Your task to perform on an android device: Search for "bose soundlink mini" on newegg, select the first entry, and add it to the cart. Image 0: 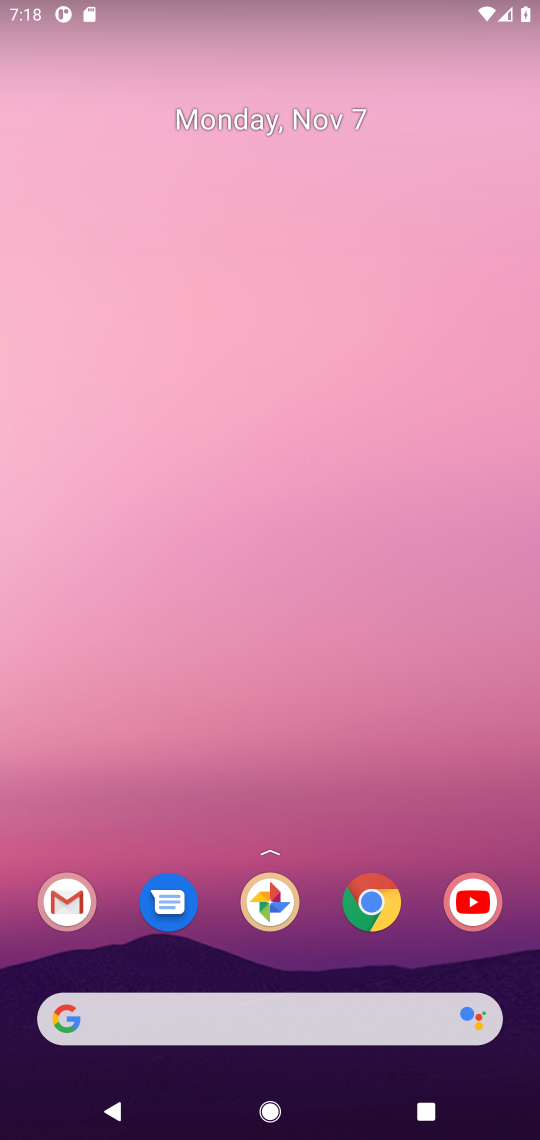
Step 0: click (375, 900)
Your task to perform on an android device: Search for "bose soundlink mini" on newegg, select the first entry, and add it to the cart. Image 1: 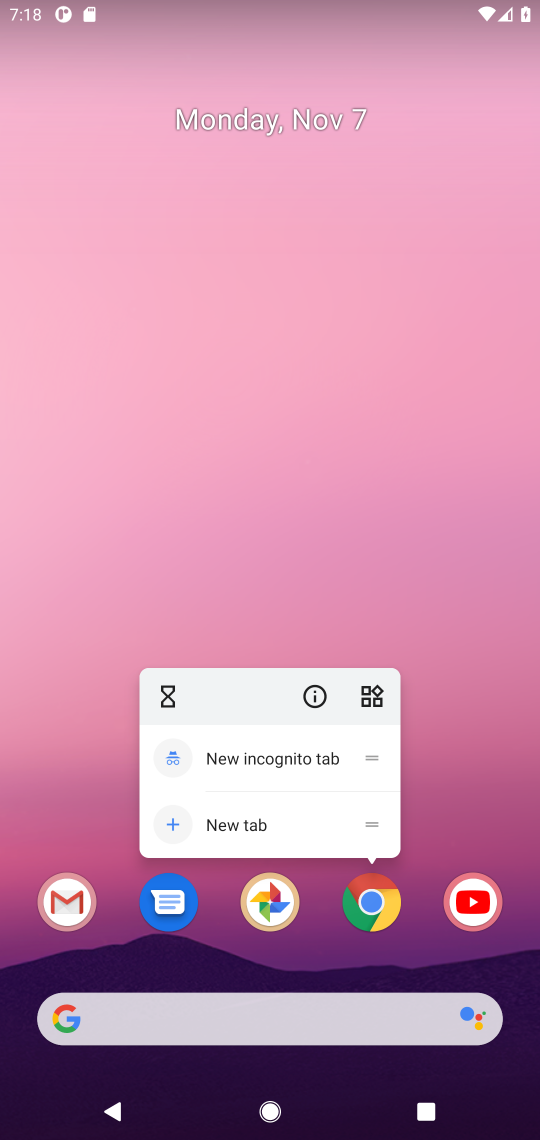
Step 1: click (375, 900)
Your task to perform on an android device: Search for "bose soundlink mini" on newegg, select the first entry, and add it to the cart. Image 2: 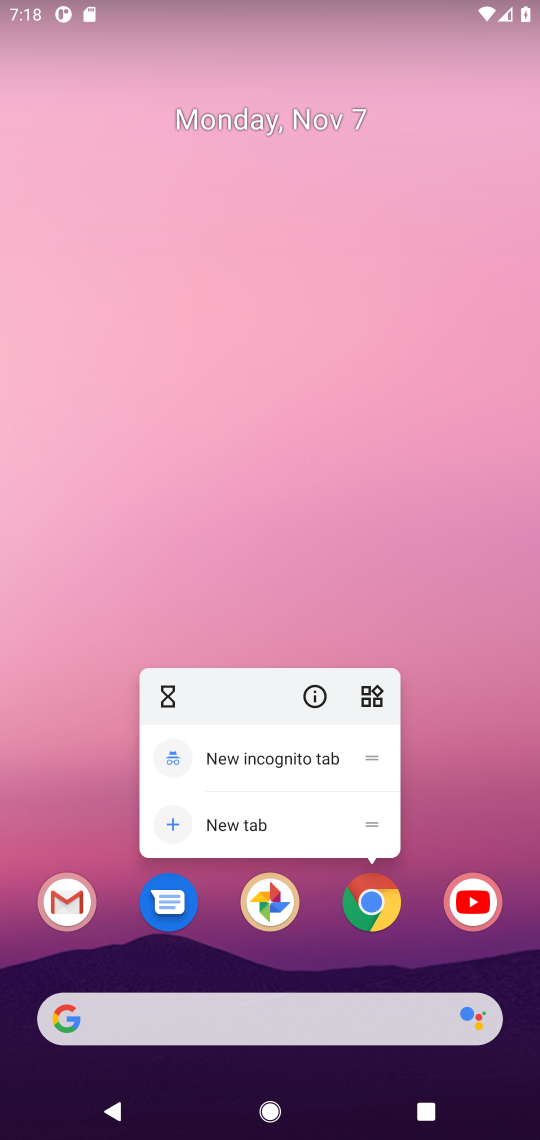
Step 2: click (375, 900)
Your task to perform on an android device: Search for "bose soundlink mini" on newegg, select the first entry, and add it to the cart. Image 3: 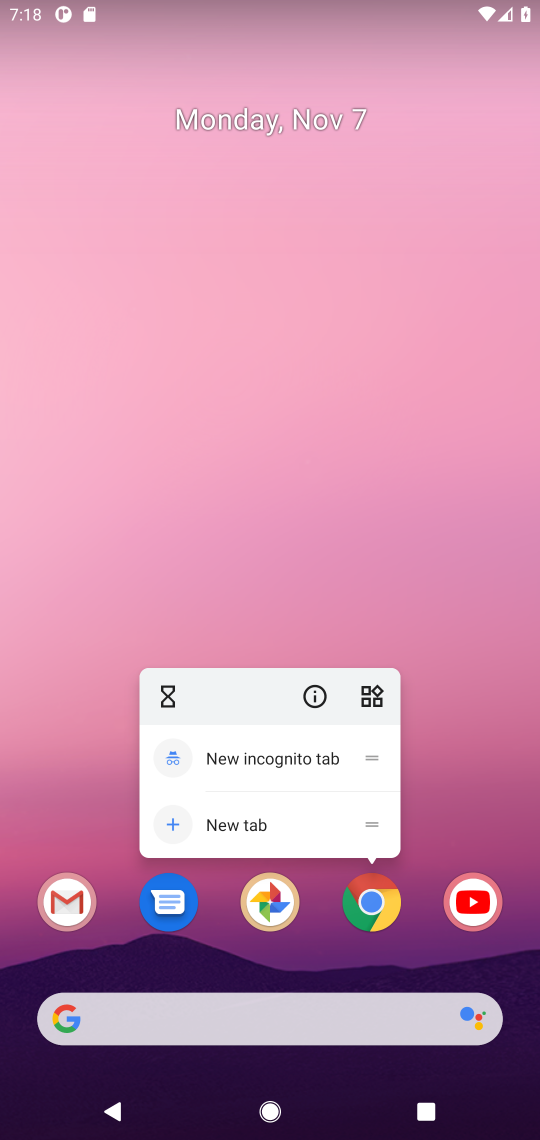
Step 3: click (375, 900)
Your task to perform on an android device: Search for "bose soundlink mini" on newegg, select the first entry, and add it to the cart. Image 4: 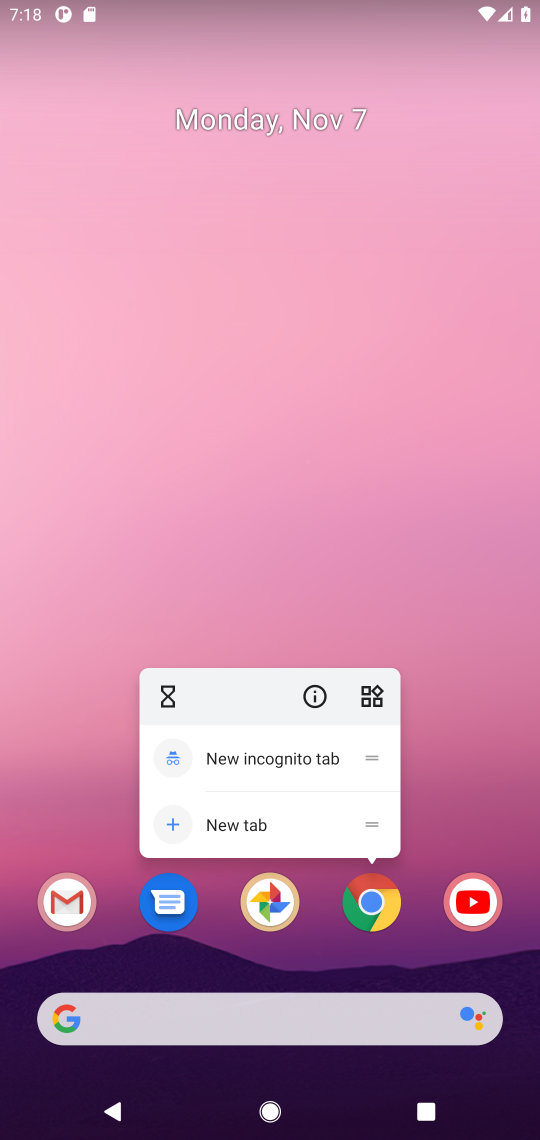
Step 4: click (373, 902)
Your task to perform on an android device: Search for "bose soundlink mini" on newegg, select the first entry, and add it to the cart. Image 5: 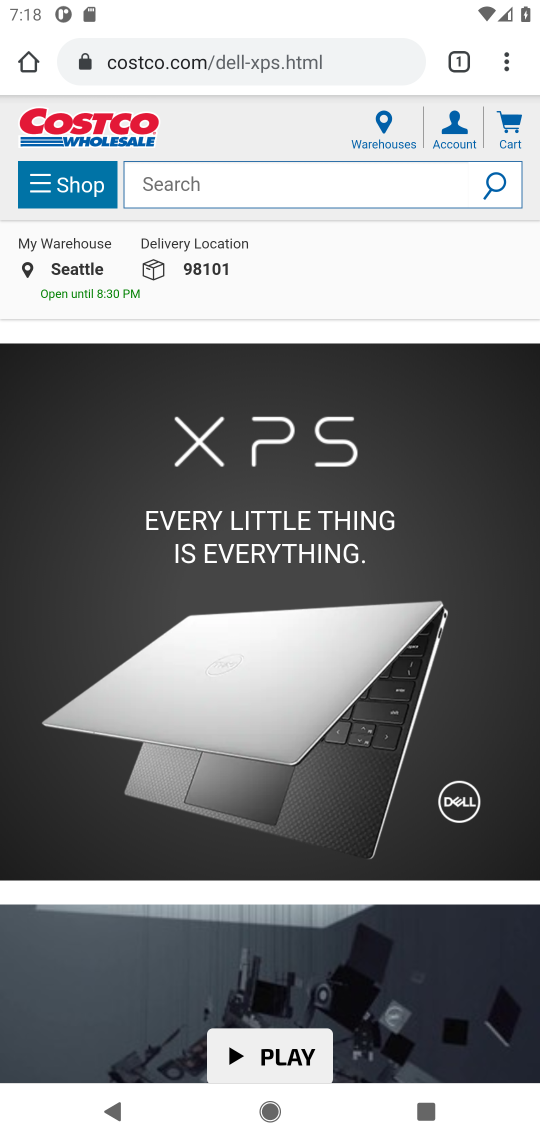
Step 5: click (211, 65)
Your task to perform on an android device: Search for "bose soundlink mini" on newegg, select the first entry, and add it to the cart. Image 6: 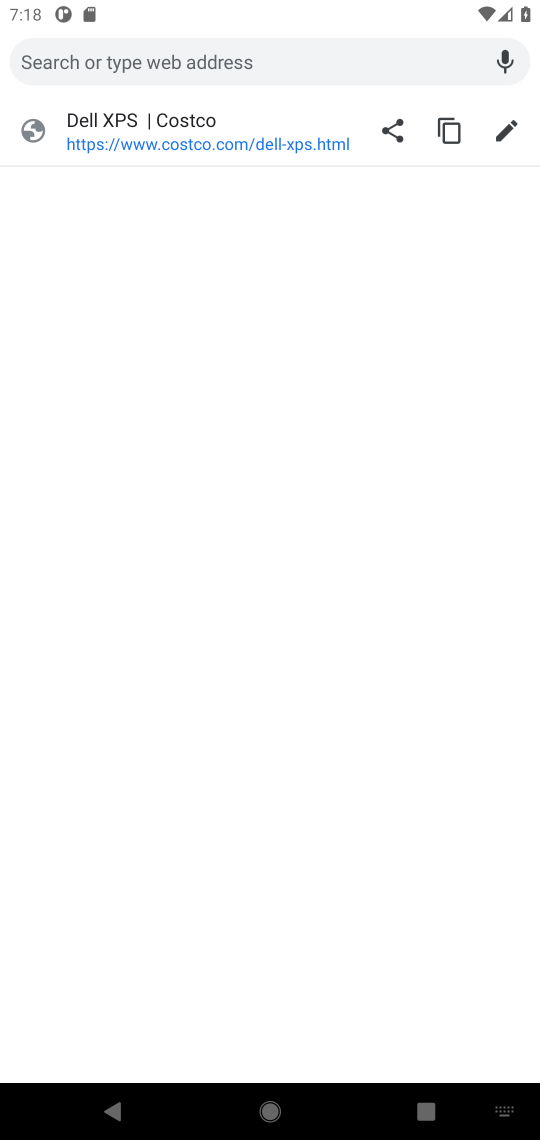
Step 6: type "newegg.com"
Your task to perform on an android device: Search for "bose soundlink mini" on newegg, select the first entry, and add it to the cart. Image 7: 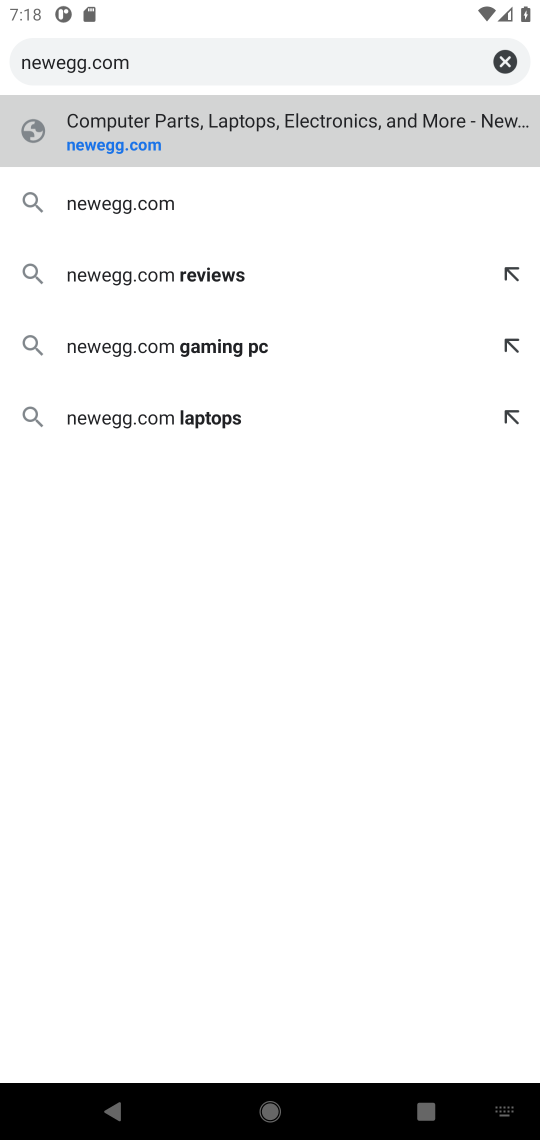
Step 7: click (146, 131)
Your task to perform on an android device: Search for "bose soundlink mini" on newegg, select the first entry, and add it to the cart. Image 8: 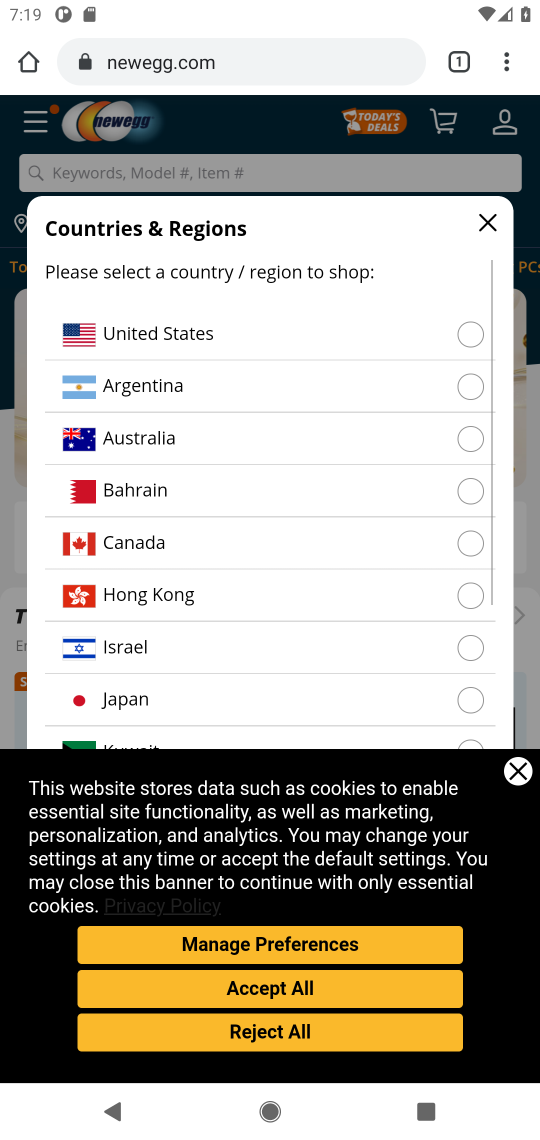
Step 8: click (375, 331)
Your task to perform on an android device: Search for "bose soundlink mini" on newegg, select the first entry, and add it to the cart. Image 9: 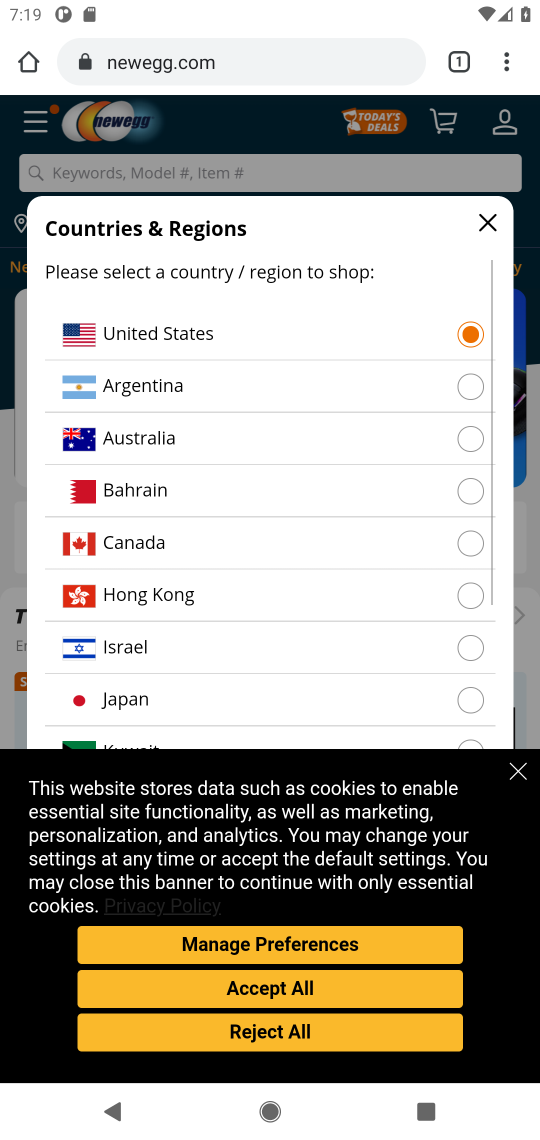
Step 9: click (486, 223)
Your task to perform on an android device: Search for "bose soundlink mini" on newegg, select the first entry, and add it to the cart. Image 10: 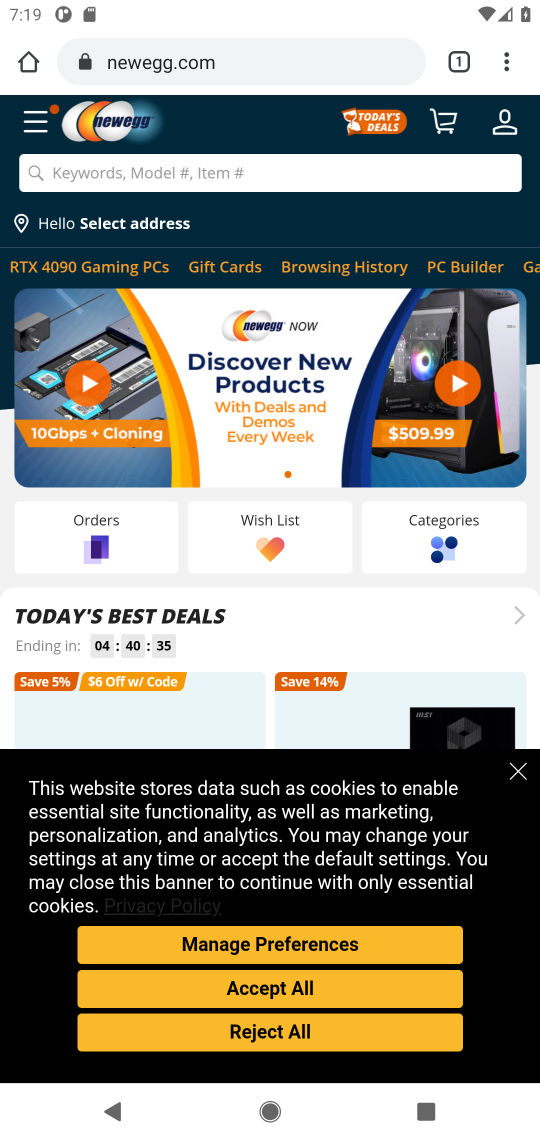
Step 10: click (262, 172)
Your task to perform on an android device: Search for "bose soundlink mini" on newegg, select the first entry, and add it to the cart. Image 11: 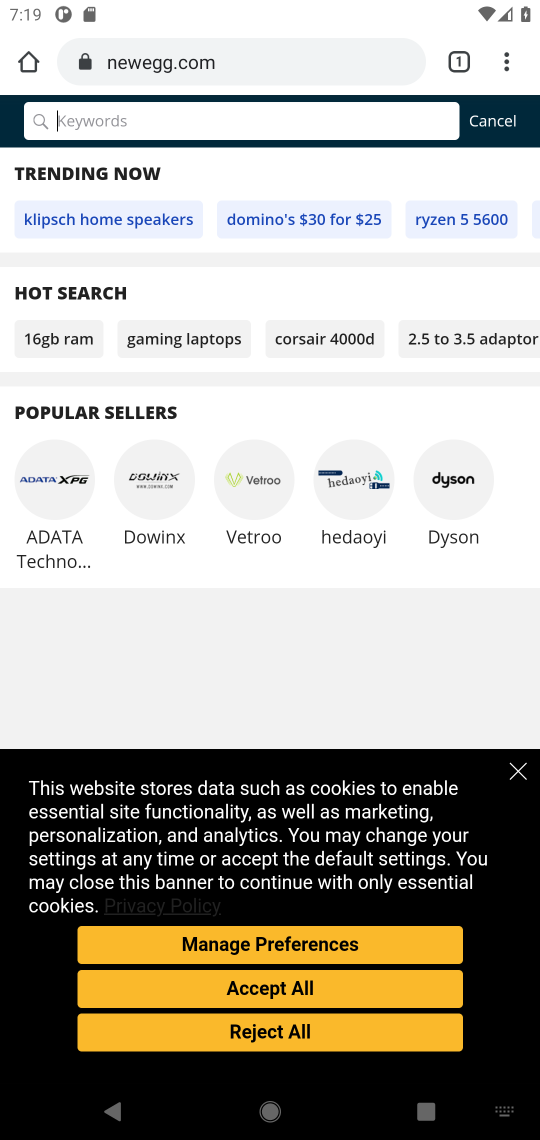
Step 11: type "bose soundlink mini"
Your task to perform on an android device: Search for "bose soundlink mini" on newegg, select the first entry, and add it to the cart. Image 12: 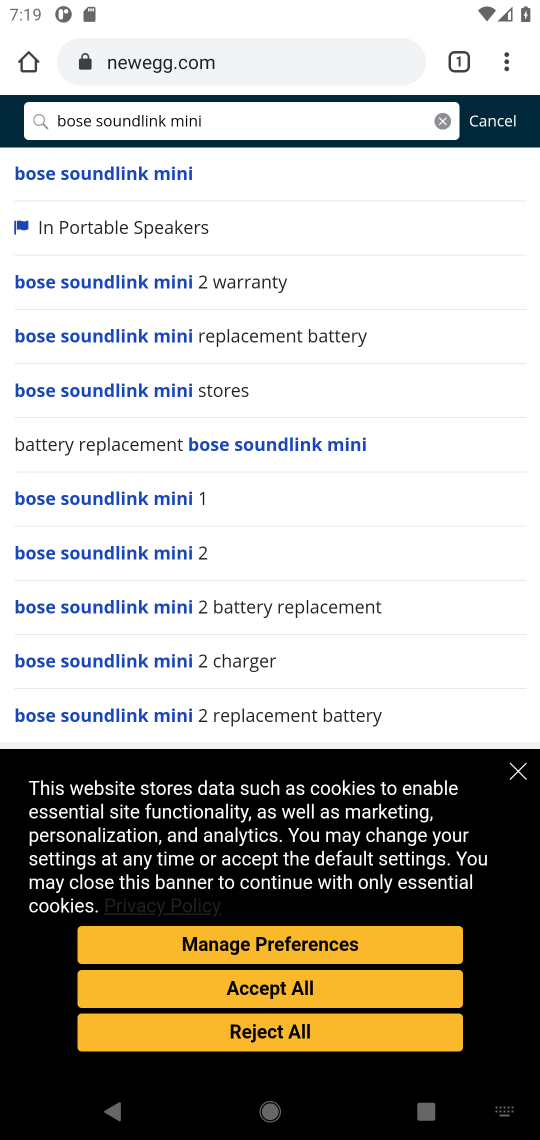
Step 12: click (83, 186)
Your task to perform on an android device: Search for "bose soundlink mini" on newegg, select the first entry, and add it to the cart. Image 13: 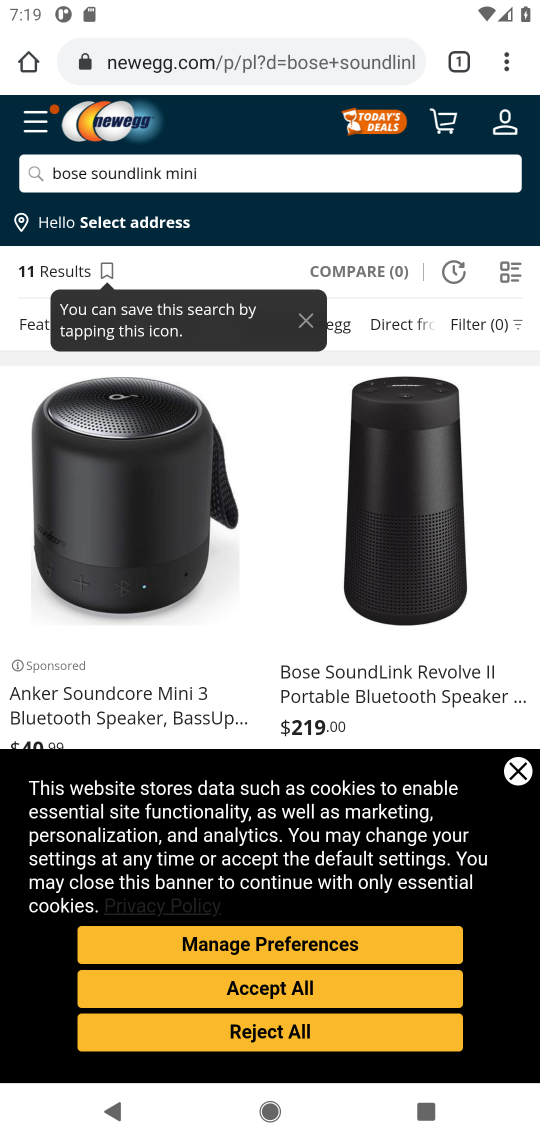
Step 13: task complete